Your task to perform on an android device: set the stopwatch Image 0: 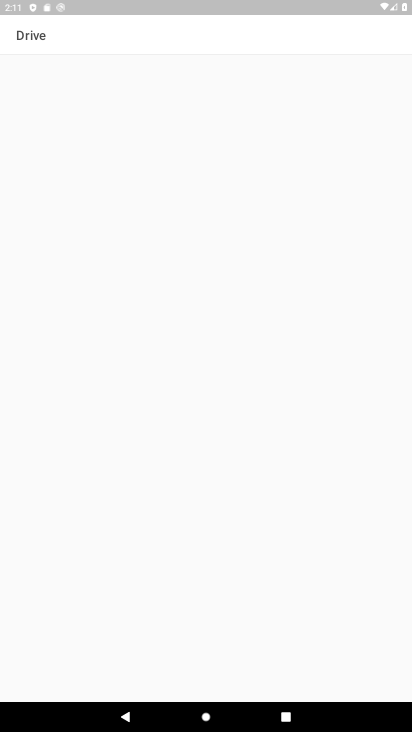
Step 0: press home button
Your task to perform on an android device: set the stopwatch Image 1: 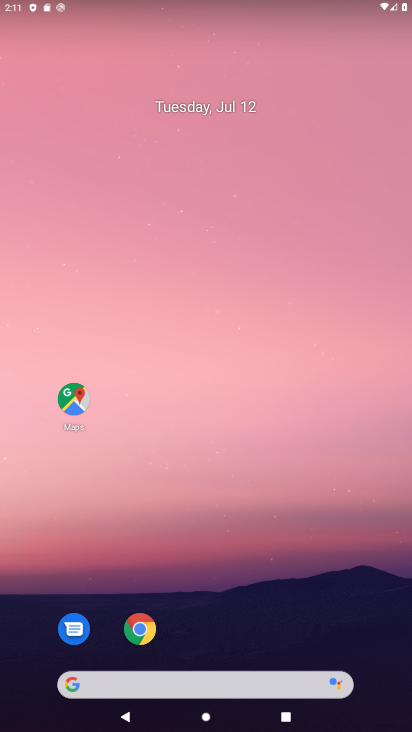
Step 1: drag from (244, 620) to (274, 167)
Your task to perform on an android device: set the stopwatch Image 2: 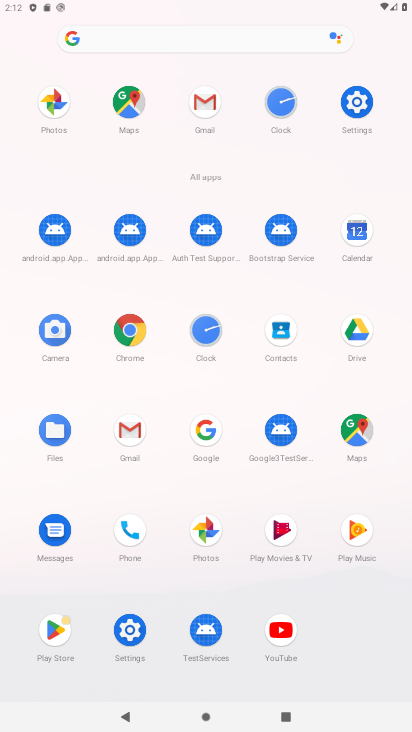
Step 2: click (207, 327)
Your task to perform on an android device: set the stopwatch Image 3: 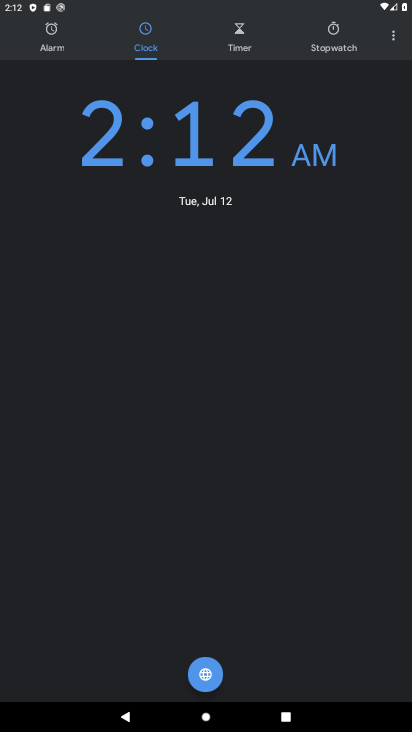
Step 3: click (332, 39)
Your task to perform on an android device: set the stopwatch Image 4: 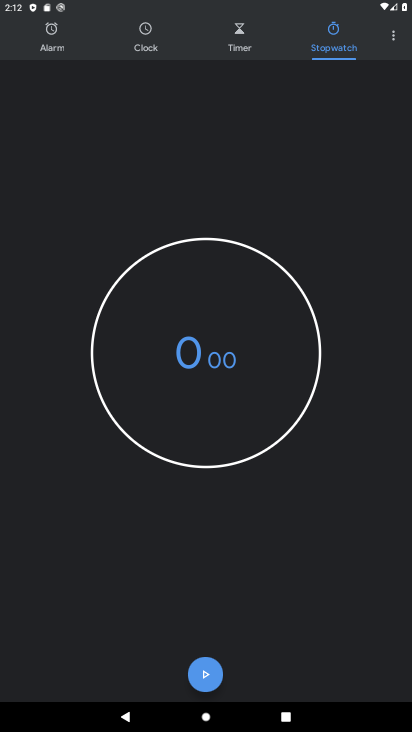
Step 4: click (204, 666)
Your task to perform on an android device: set the stopwatch Image 5: 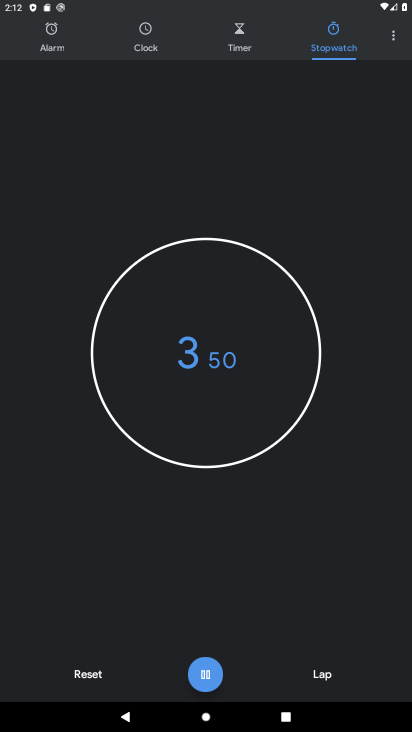
Step 5: task complete